Your task to perform on an android device: turn off smart reply in the gmail app Image 0: 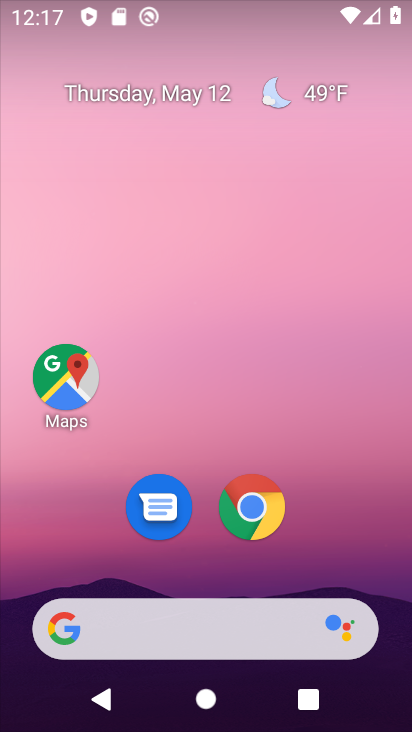
Step 0: drag from (369, 553) to (328, 21)
Your task to perform on an android device: turn off smart reply in the gmail app Image 1: 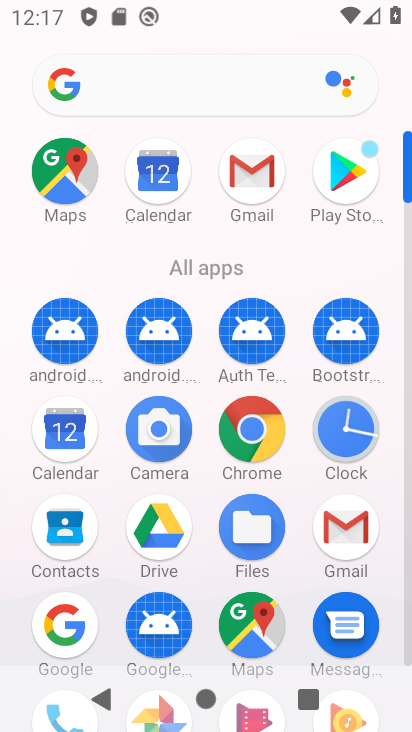
Step 1: click (345, 516)
Your task to perform on an android device: turn off smart reply in the gmail app Image 2: 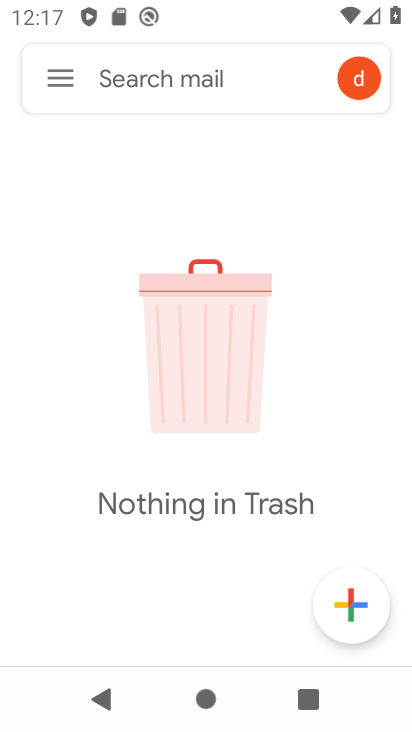
Step 2: click (55, 81)
Your task to perform on an android device: turn off smart reply in the gmail app Image 3: 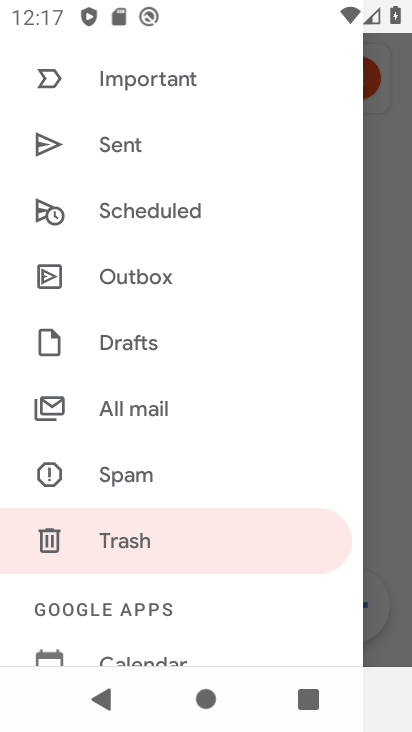
Step 3: drag from (153, 561) to (218, 365)
Your task to perform on an android device: turn off smart reply in the gmail app Image 4: 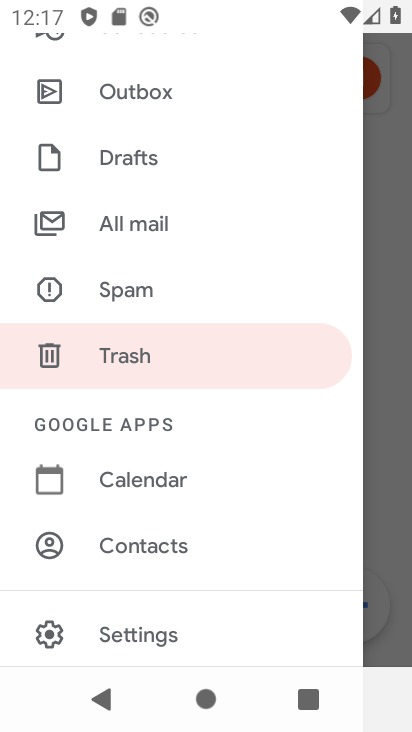
Step 4: click (197, 627)
Your task to perform on an android device: turn off smart reply in the gmail app Image 5: 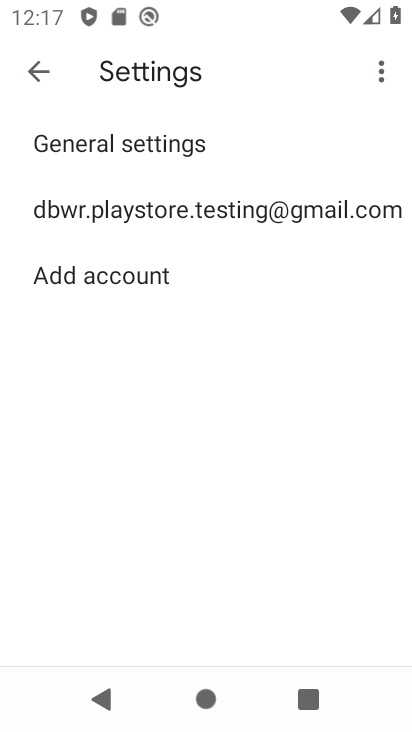
Step 5: click (242, 214)
Your task to perform on an android device: turn off smart reply in the gmail app Image 6: 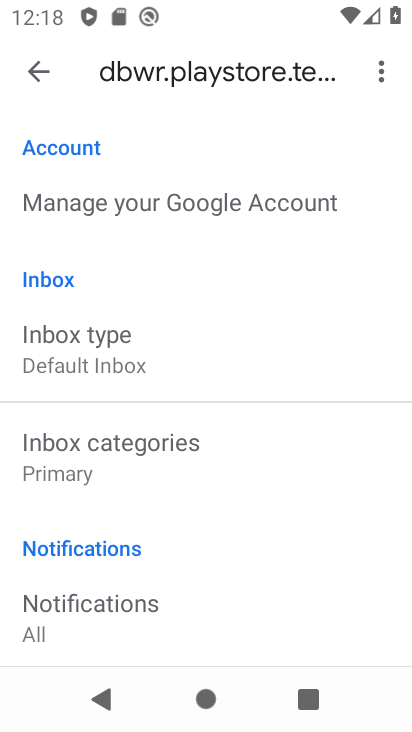
Step 6: drag from (213, 550) to (200, 235)
Your task to perform on an android device: turn off smart reply in the gmail app Image 7: 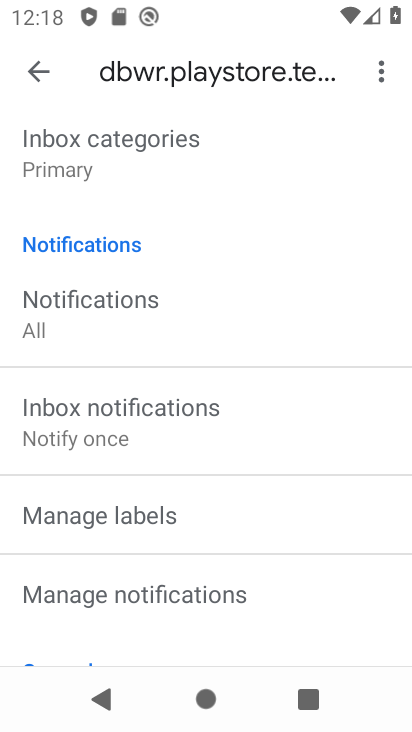
Step 7: drag from (183, 531) to (267, 306)
Your task to perform on an android device: turn off smart reply in the gmail app Image 8: 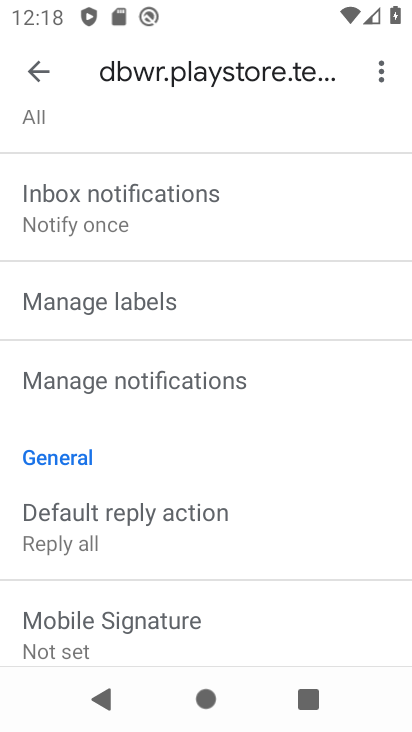
Step 8: drag from (119, 579) to (131, 350)
Your task to perform on an android device: turn off smart reply in the gmail app Image 9: 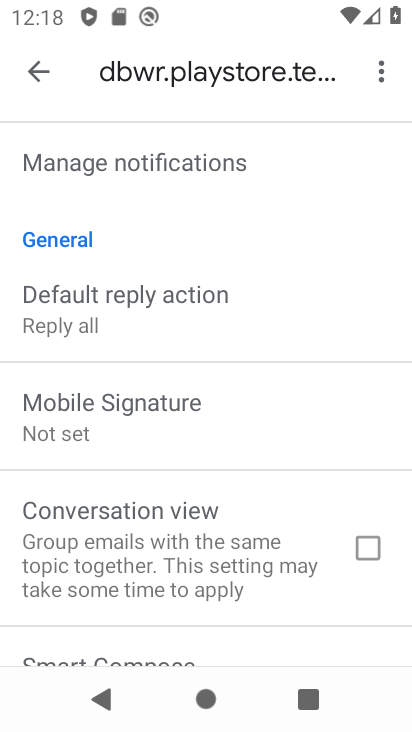
Step 9: drag from (114, 565) to (111, 455)
Your task to perform on an android device: turn off smart reply in the gmail app Image 10: 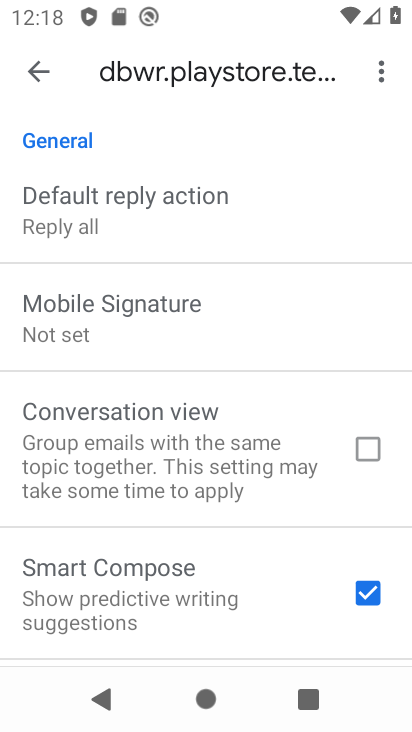
Step 10: drag from (121, 582) to (155, 439)
Your task to perform on an android device: turn off smart reply in the gmail app Image 11: 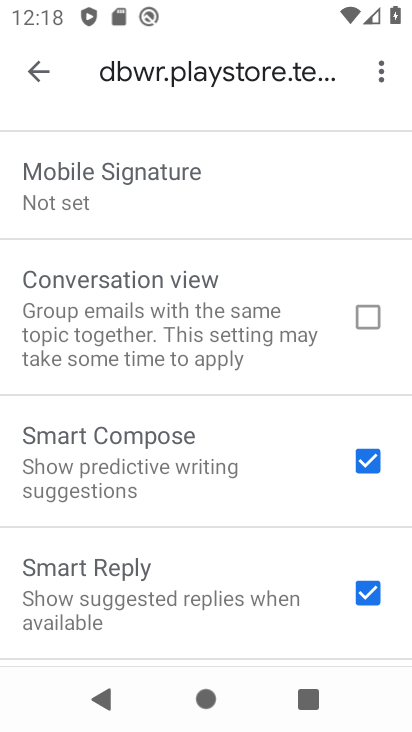
Step 11: click (348, 604)
Your task to perform on an android device: turn off smart reply in the gmail app Image 12: 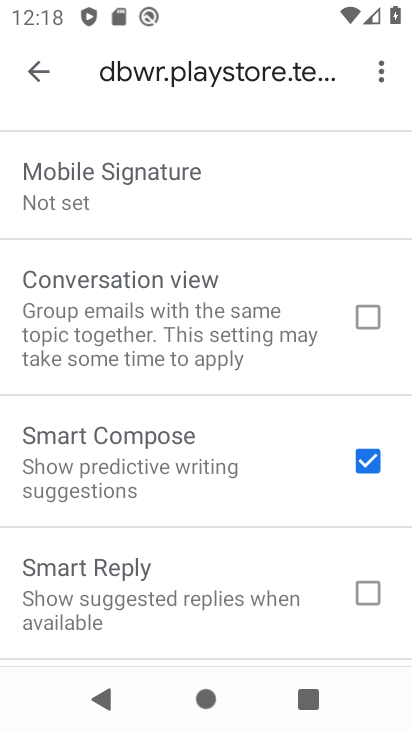
Step 12: task complete